Your task to perform on an android device: Open notification settings Image 0: 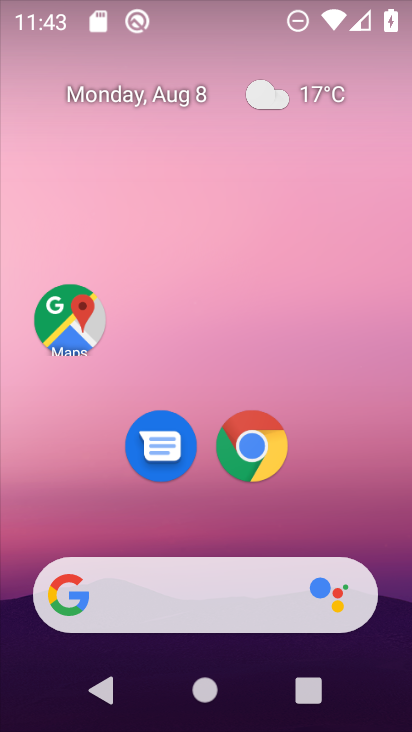
Step 0: drag from (400, 651) to (383, 168)
Your task to perform on an android device: Open notification settings Image 1: 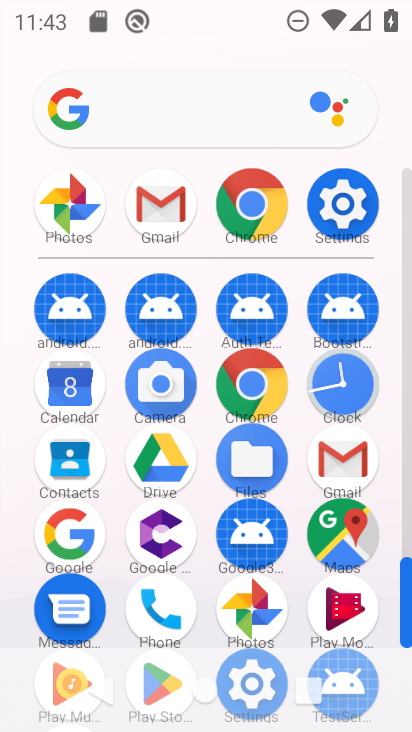
Step 1: click (403, 534)
Your task to perform on an android device: Open notification settings Image 2: 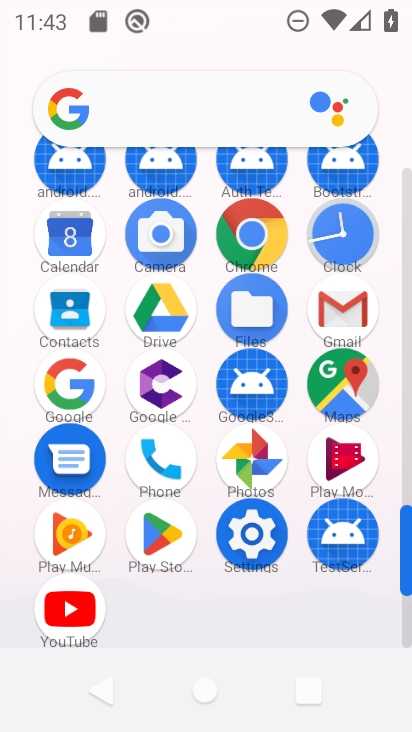
Step 2: click (251, 532)
Your task to perform on an android device: Open notification settings Image 3: 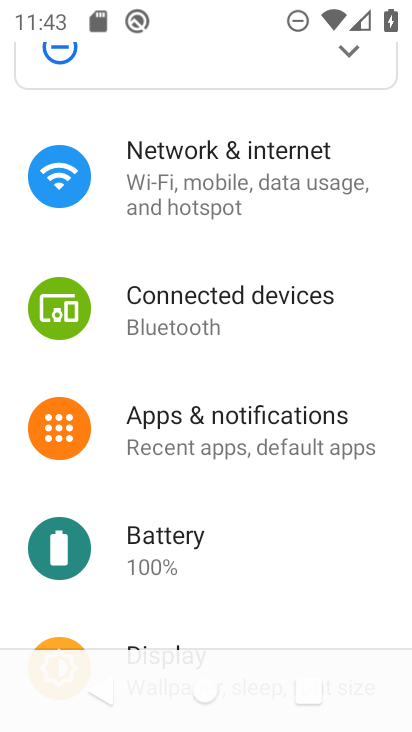
Step 3: click (195, 413)
Your task to perform on an android device: Open notification settings Image 4: 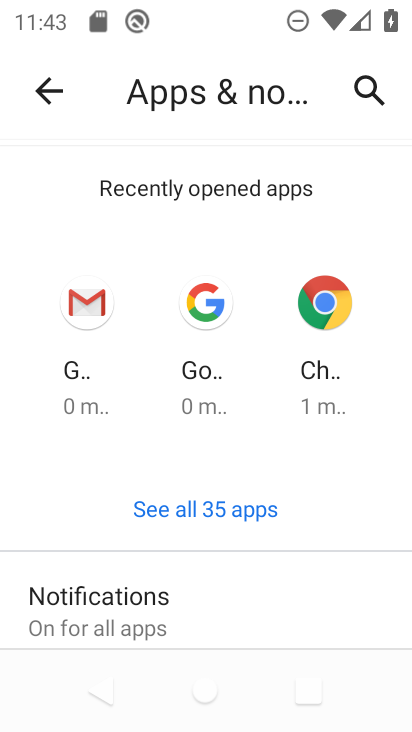
Step 4: click (98, 606)
Your task to perform on an android device: Open notification settings Image 5: 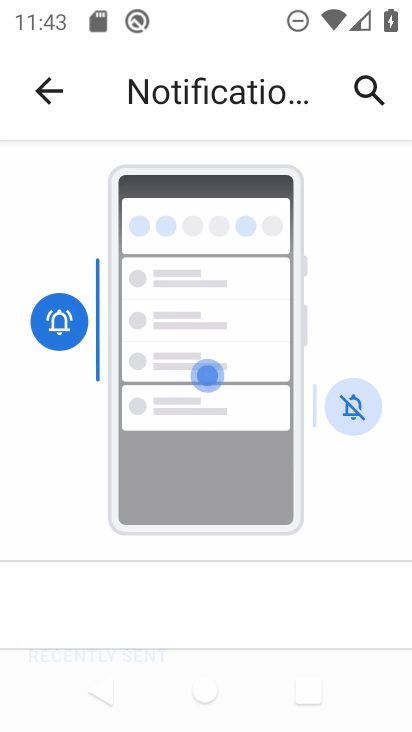
Step 5: drag from (262, 627) to (300, 194)
Your task to perform on an android device: Open notification settings Image 6: 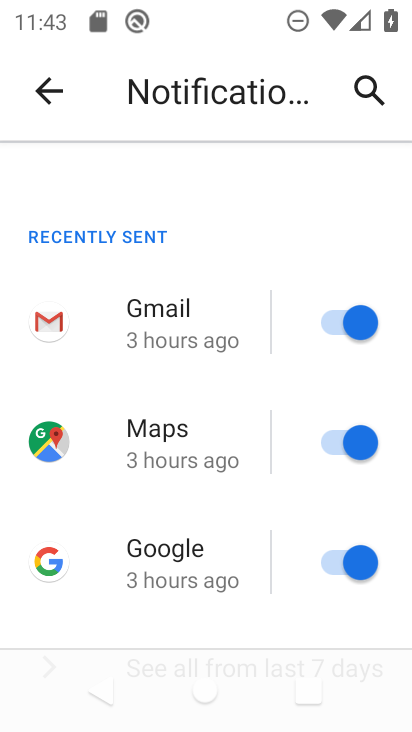
Step 6: drag from (266, 611) to (272, 191)
Your task to perform on an android device: Open notification settings Image 7: 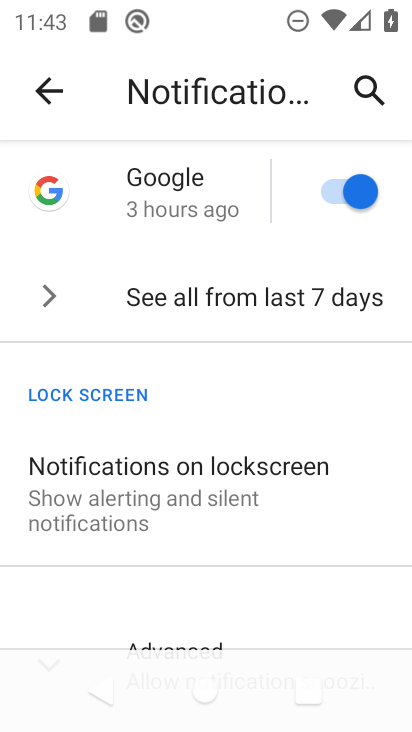
Step 7: drag from (271, 527) to (261, 227)
Your task to perform on an android device: Open notification settings Image 8: 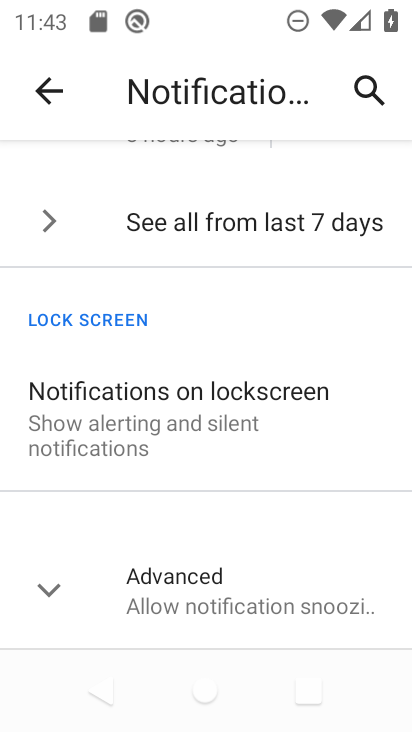
Step 8: click (40, 598)
Your task to perform on an android device: Open notification settings Image 9: 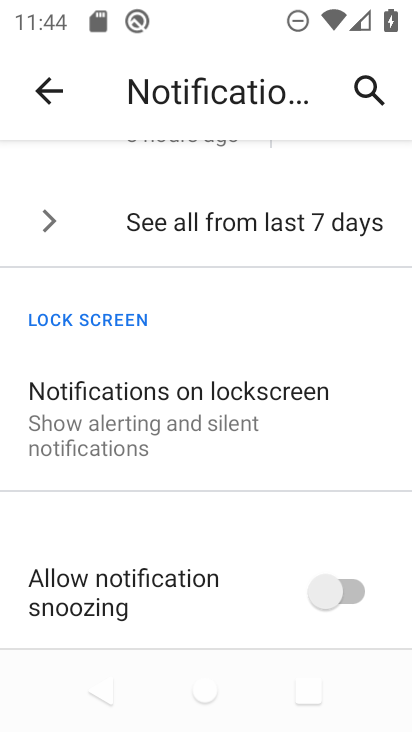
Step 9: task complete